Your task to perform on an android device: turn pop-ups on in chrome Image 0: 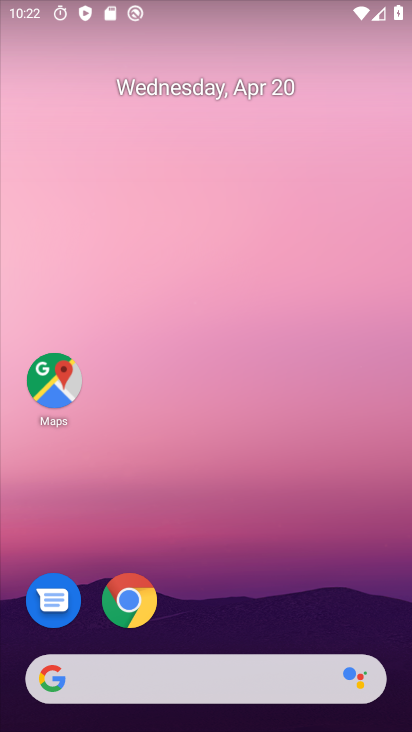
Step 0: click (147, 594)
Your task to perform on an android device: turn pop-ups on in chrome Image 1: 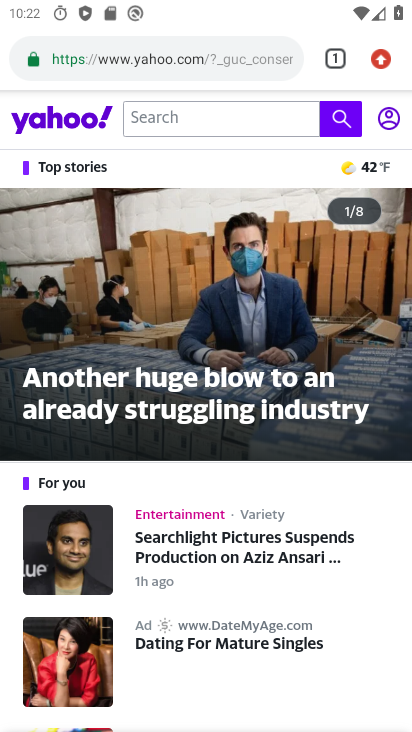
Step 1: click (380, 57)
Your task to perform on an android device: turn pop-ups on in chrome Image 2: 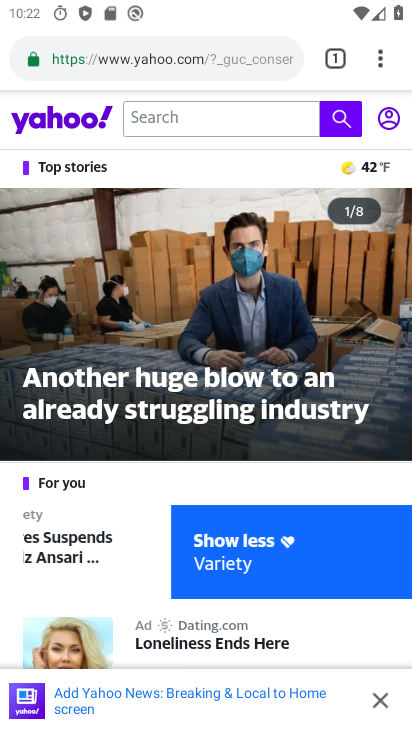
Step 2: click (380, 58)
Your task to perform on an android device: turn pop-ups on in chrome Image 3: 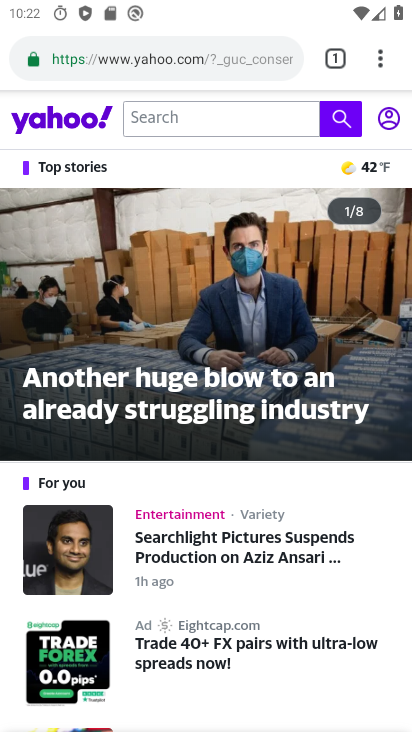
Step 3: click (380, 60)
Your task to perform on an android device: turn pop-ups on in chrome Image 4: 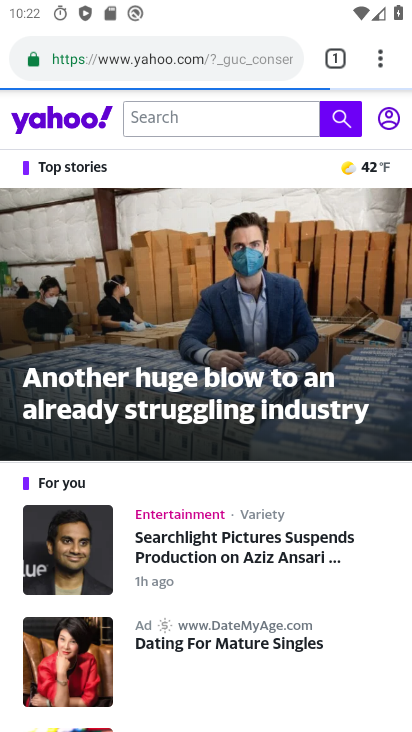
Step 4: click (380, 62)
Your task to perform on an android device: turn pop-ups on in chrome Image 5: 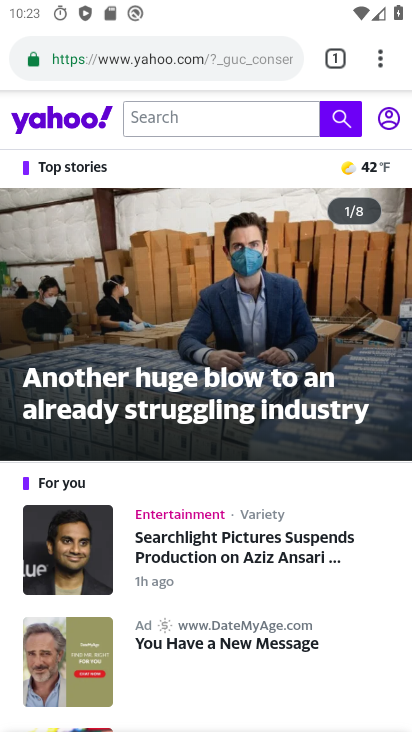
Step 5: drag from (380, 63) to (256, 621)
Your task to perform on an android device: turn pop-ups on in chrome Image 6: 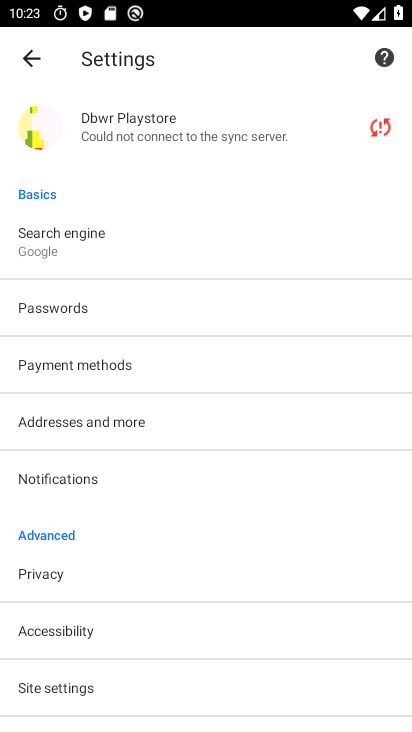
Step 6: click (260, 697)
Your task to perform on an android device: turn pop-ups on in chrome Image 7: 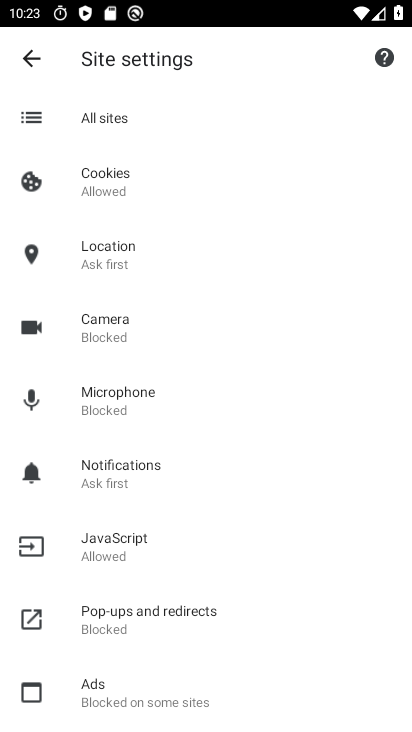
Step 7: click (255, 626)
Your task to perform on an android device: turn pop-ups on in chrome Image 8: 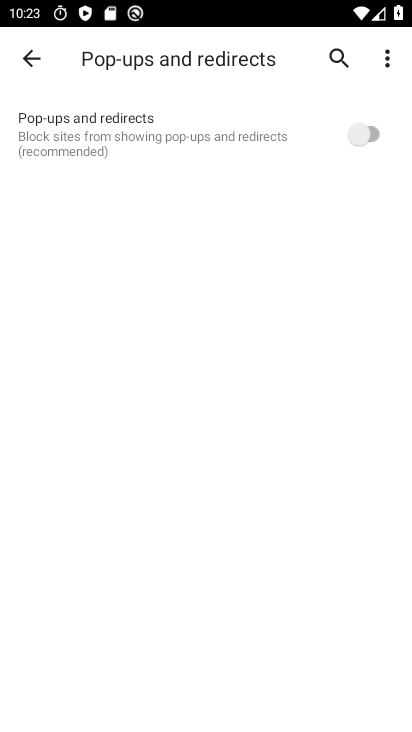
Step 8: click (370, 124)
Your task to perform on an android device: turn pop-ups on in chrome Image 9: 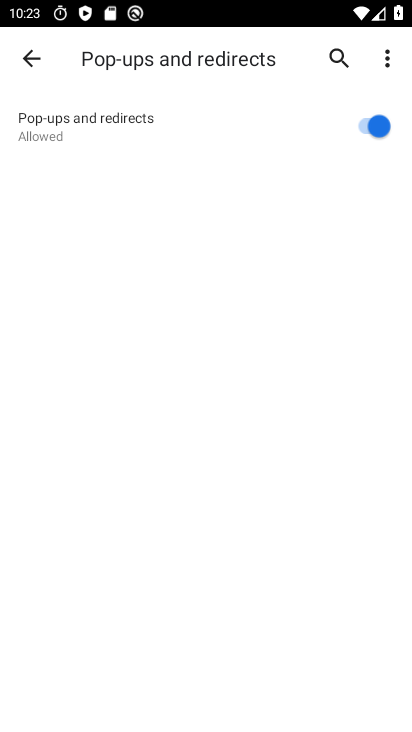
Step 9: task complete